Your task to perform on an android device: turn pop-ups off in chrome Image 0: 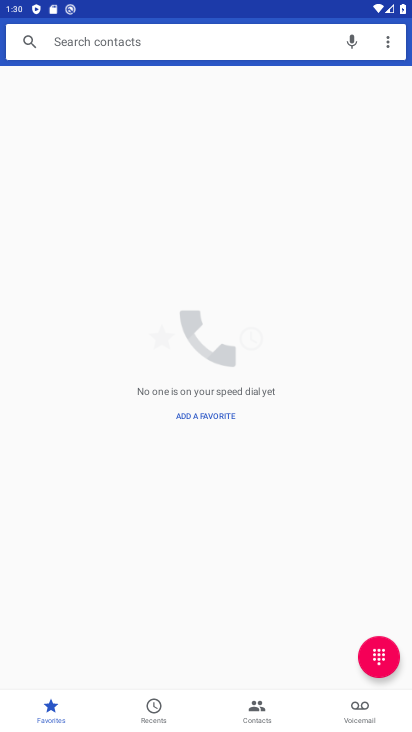
Step 0: press home button
Your task to perform on an android device: turn pop-ups off in chrome Image 1: 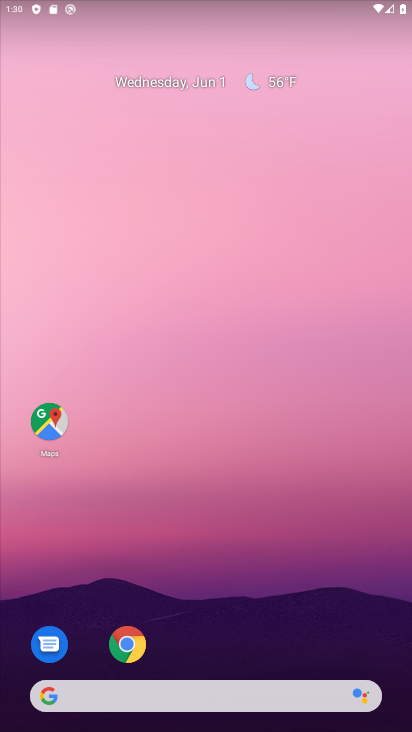
Step 1: click (132, 640)
Your task to perform on an android device: turn pop-ups off in chrome Image 2: 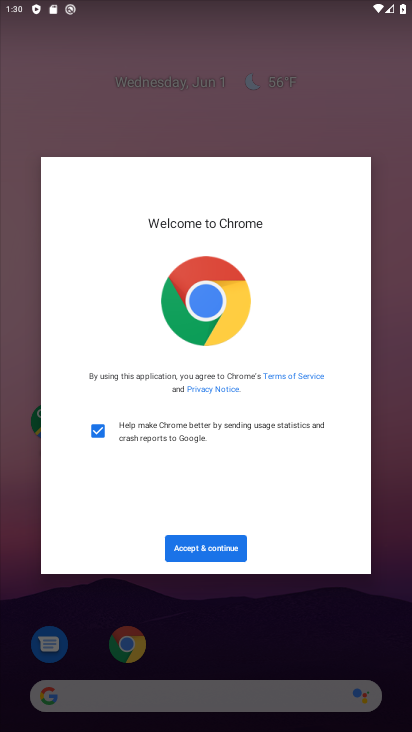
Step 2: click (197, 548)
Your task to perform on an android device: turn pop-ups off in chrome Image 3: 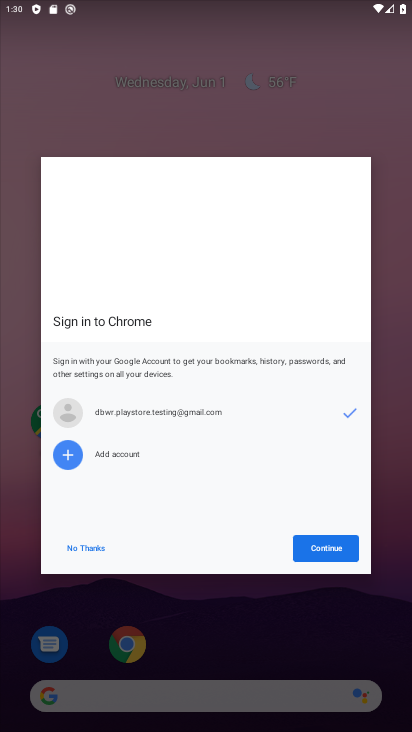
Step 3: click (338, 551)
Your task to perform on an android device: turn pop-ups off in chrome Image 4: 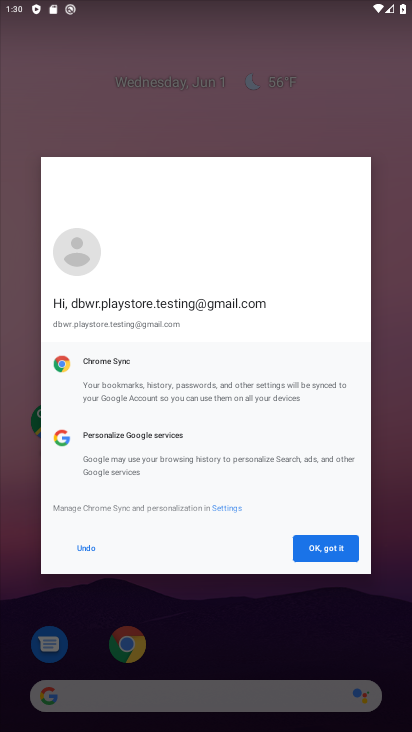
Step 4: click (337, 549)
Your task to perform on an android device: turn pop-ups off in chrome Image 5: 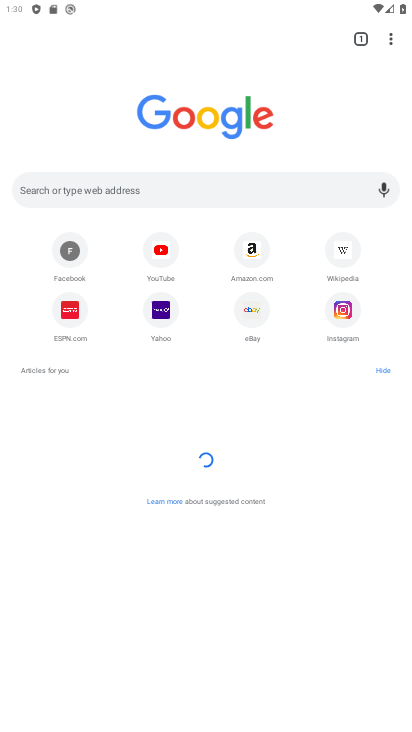
Step 5: click (384, 44)
Your task to perform on an android device: turn pop-ups off in chrome Image 6: 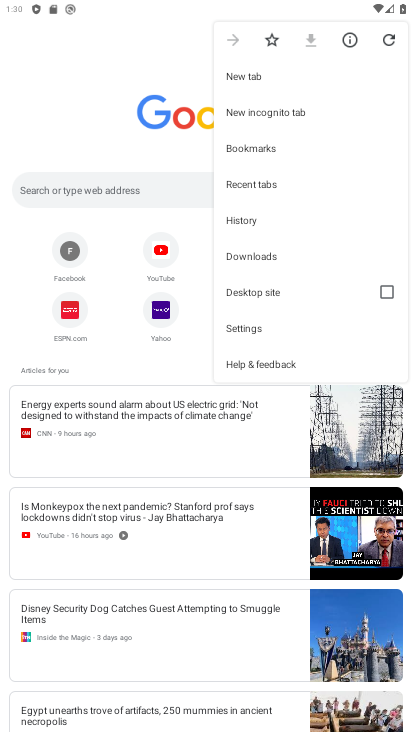
Step 6: click (259, 327)
Your task to perform on an android device: turn pop-ups off in chrome Image 7: 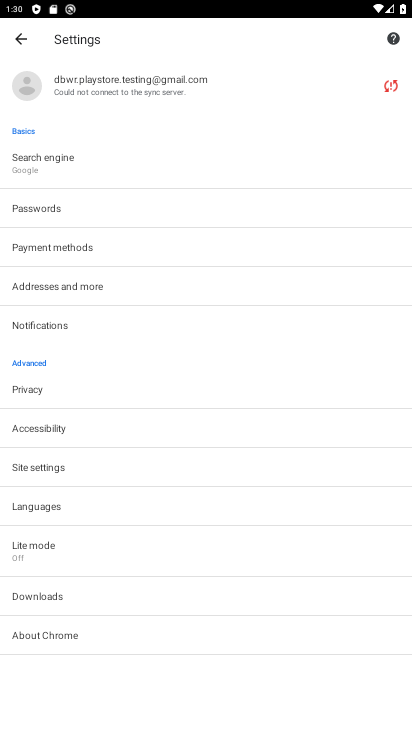
Step 7: click (34, 460)
Your task to perform on an android device: turn pop-ups off in chrome Image 8: 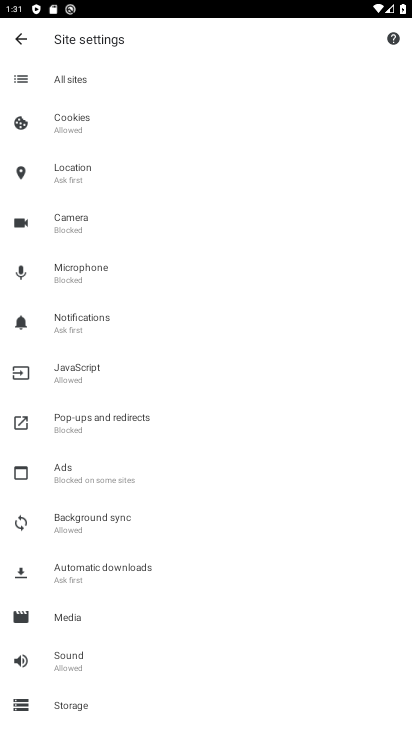
Step 8: click (67, 418)
Your task to perform on an android device: turn pop-ups off in chrome Image 9: 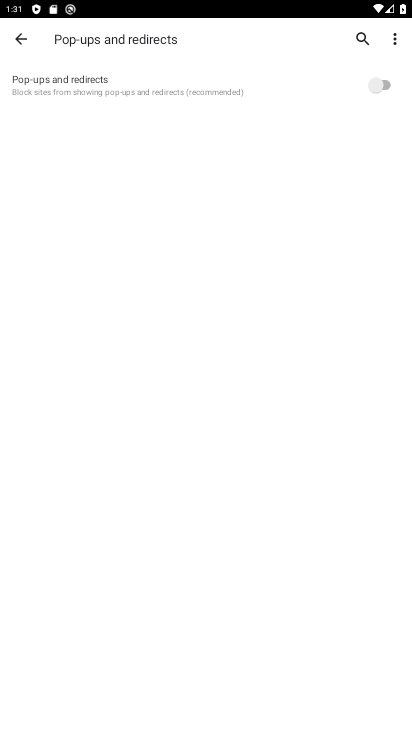
Step 9: task complete